Your task to perform on an android device: change keyboard looks Image 0: 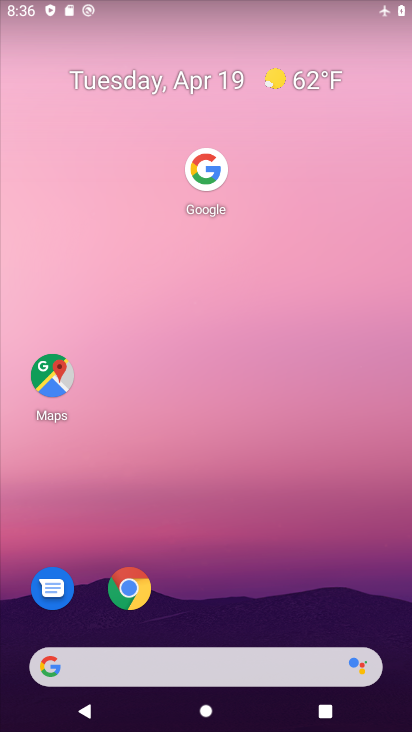
Step 0: drag from (229, 554) to (292, 49)
Your task to perform on an android device: change keyboard looks Image 1: 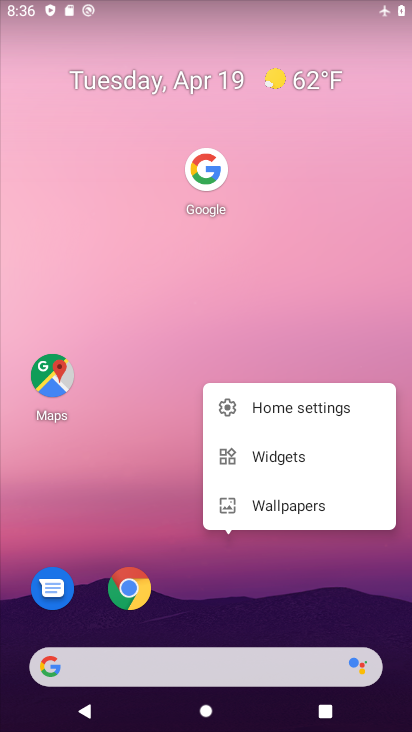
Step 1: click (128, 399)
Your task to perform on an android device: change keyboard looks Image 2: 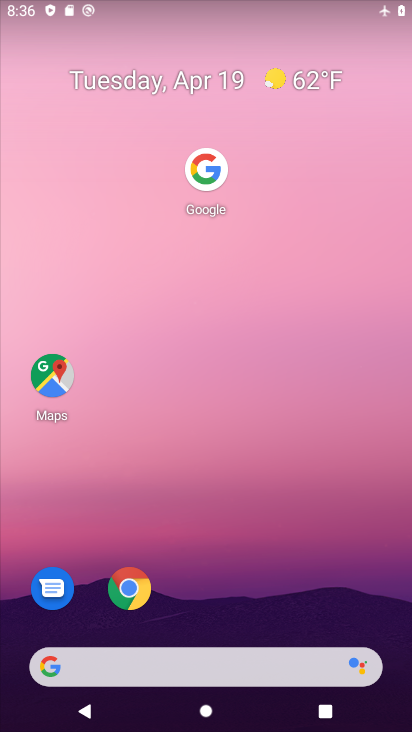
Step 2: drag from (200, 580) to (198, 91)
Your task to perform on an android device: change keyboard looks Image 3: 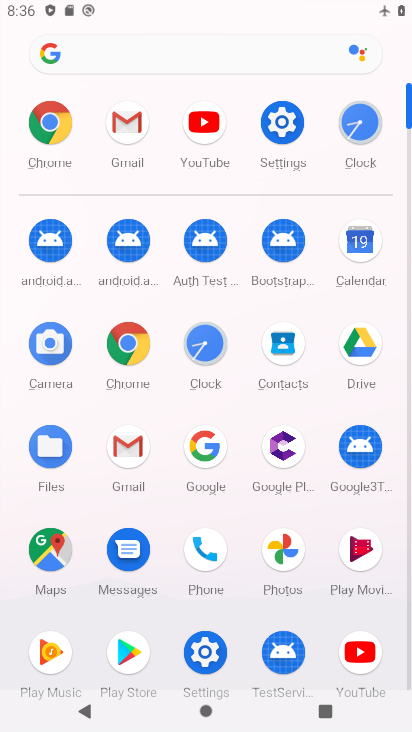
Step 3: click (284, 124)
Your task to perform on an android device: change keyboard looks Image 4: 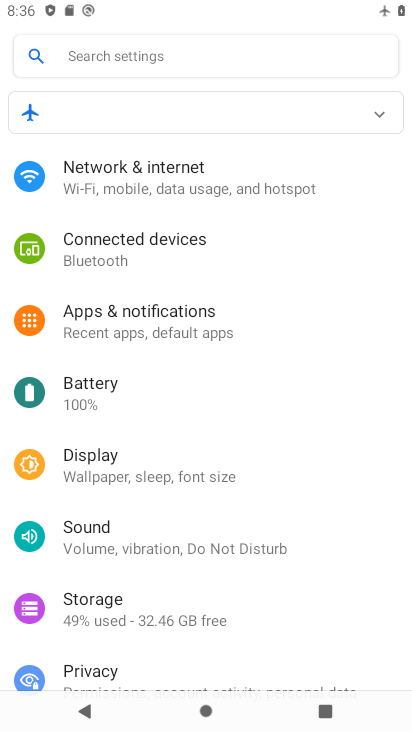
Step 4: drag from (204, 322) to (154, 136)
Your task to perform on an android device: change keyboard looks Image 5: 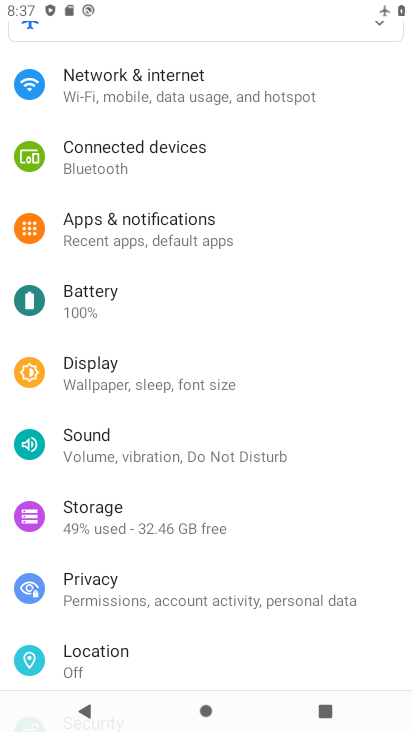
Step 5: drag from (164, 564) to (144, 11)
Your task to perform on an android device: change keyboard looks Image 6: 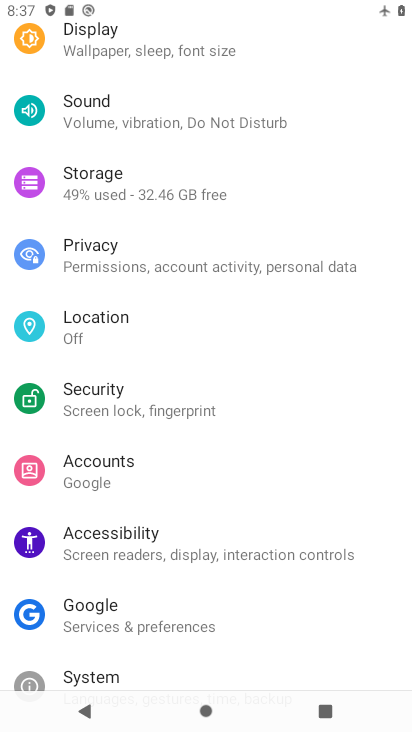
Step 6: drag from (200, 603) to (150, 54)
Your task to perform on an android device: change keyboard looks Image 7: 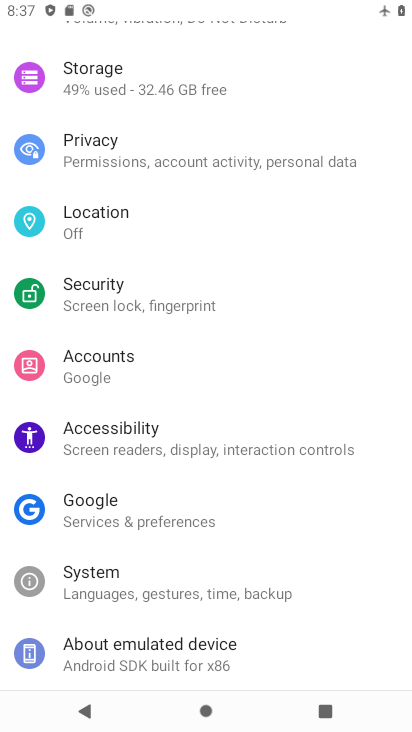
Step 7: click (80, 574)
Your task to perform on an android device: change keyboard looks Image 8: 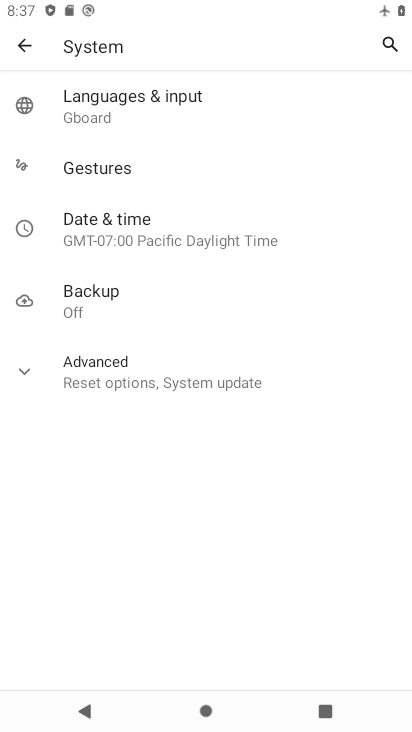
Step 8: click (90, 93)
Your task to perform on an android device: change keyboard looks Image 9: 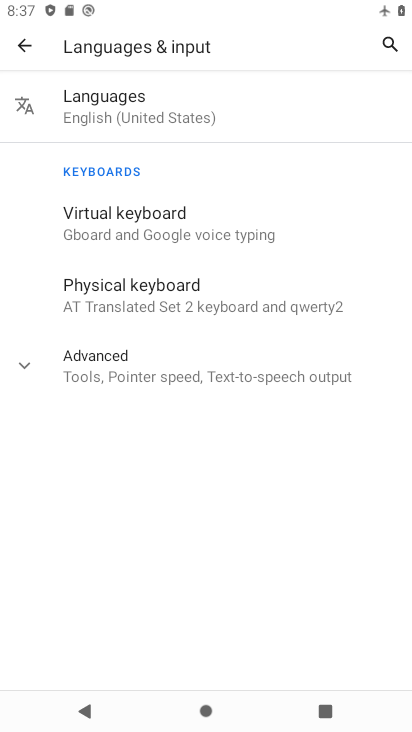
Step 9: click (103, 216)
Your task to perform on an android device: change keyboard looks Image 10: 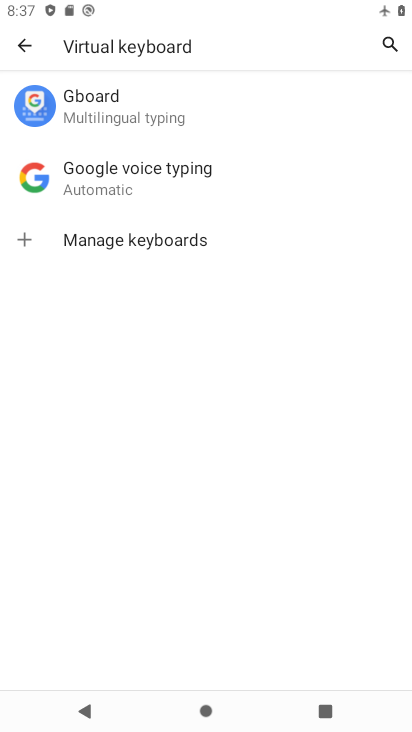
Step 10: click (87, 99)
Your task to perform on an android device: change keyboard looks Image 11: 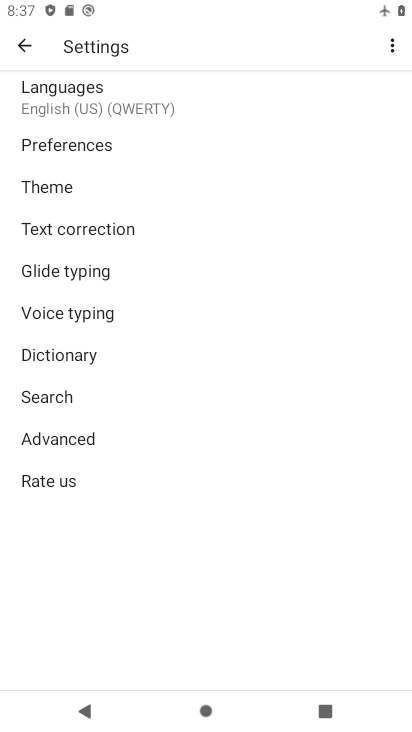
Step 11: click (43, 187)
Your task to perform on an android device: change keyboard looks Image 12: 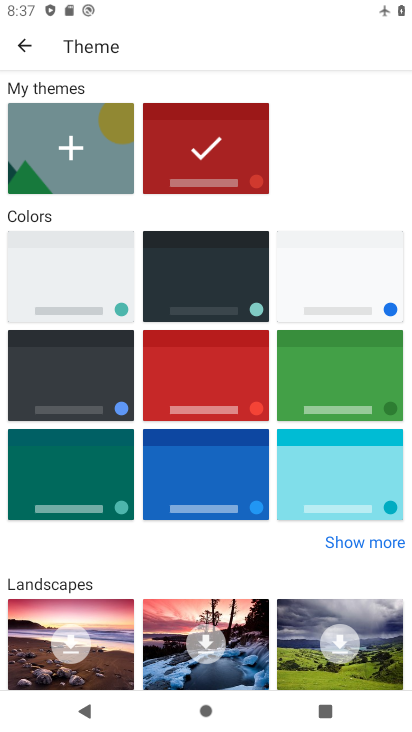
Step 12: click (53, 374)
Your task to perform on an android device: change keyboard looks Image 13: 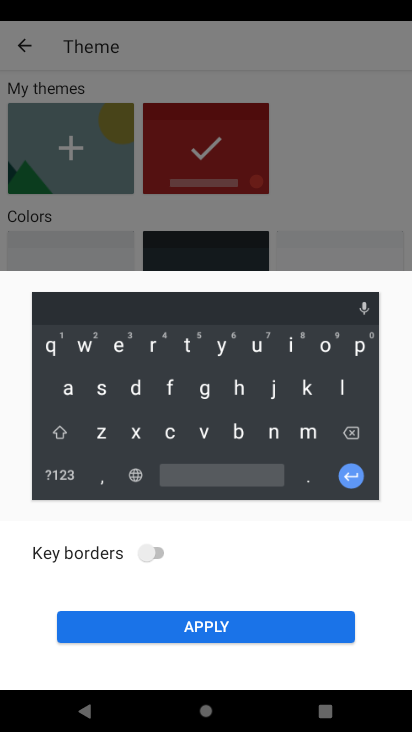
Step 13: click (215, 633)
Your task to perform on an android device: change keyboard looks Image 14: 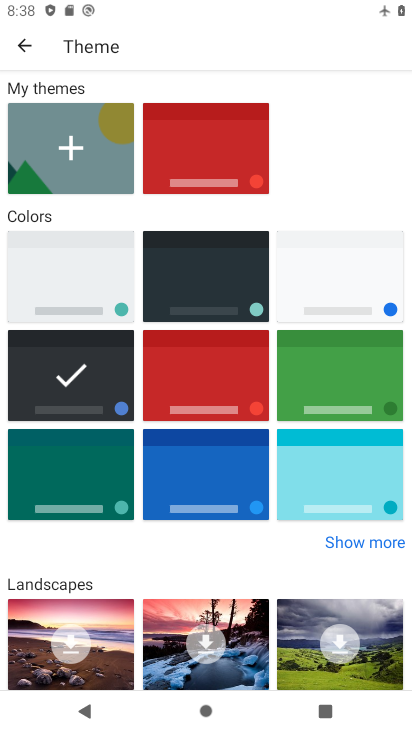
Step 14: task complete